Your task to perform on an android device: turn on notifications settings in the gmail app Image 0: 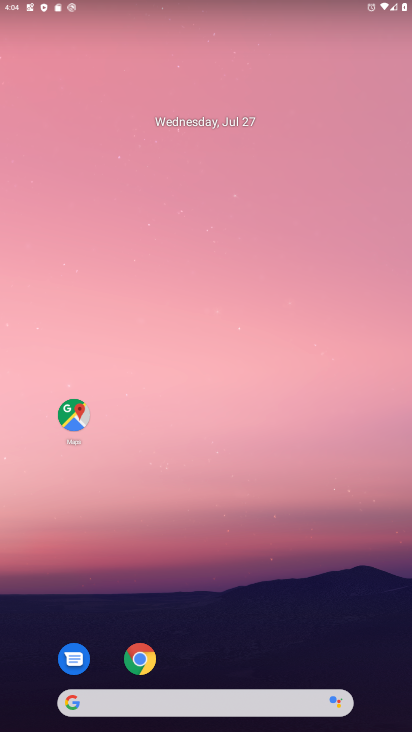
Step 0: click (230, 650)
Your task to perform on an android device: turn on notifications settings in the gmail app Image 1: 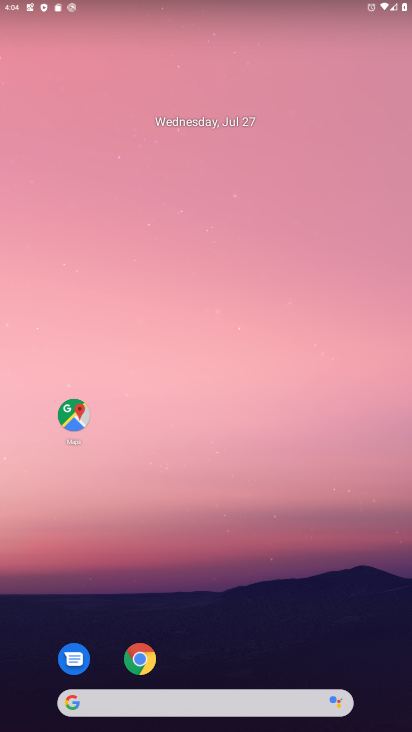
Step 1: drag from (230, 650) to (230, 76)
Your task to perform on an android device: turn on notifications settings in the gmail app Image 2: 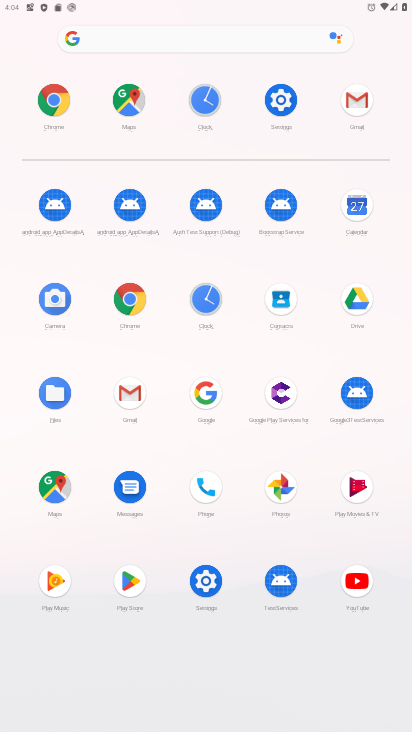
Step 2: click (134, 388)
Your task to perform on an android device: turn on notifications settings in the gmail app Image 3: 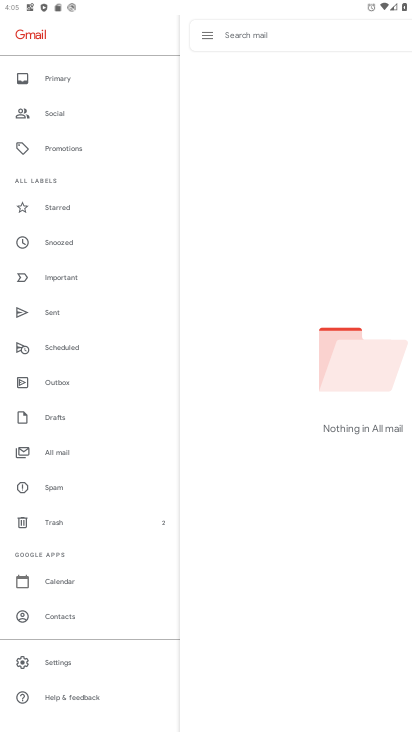
Step 3: click (46, 664)
Your task to perform on an android device: turn on notifications settings in the gmail app Image 4: 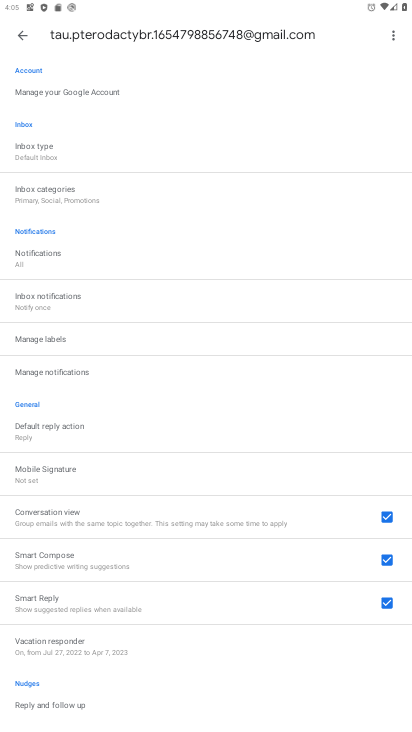
Step 4: click (69, 370)
Your task to perform on an android device: turn on notifications settings in the gmail app Image 5: 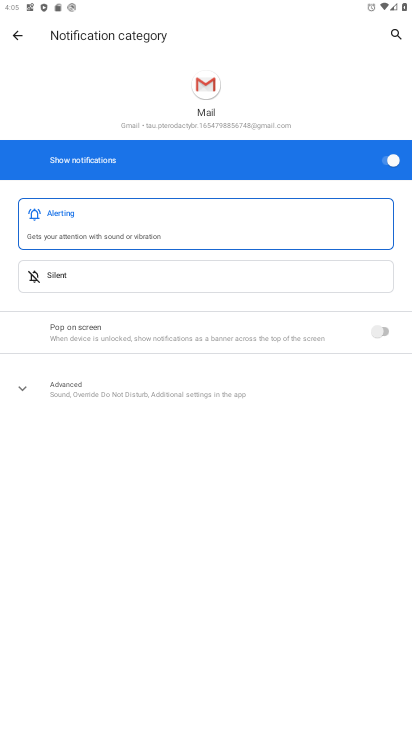
Step 5: task complete